Your task to perform on an android device: change timer sound Image 0: 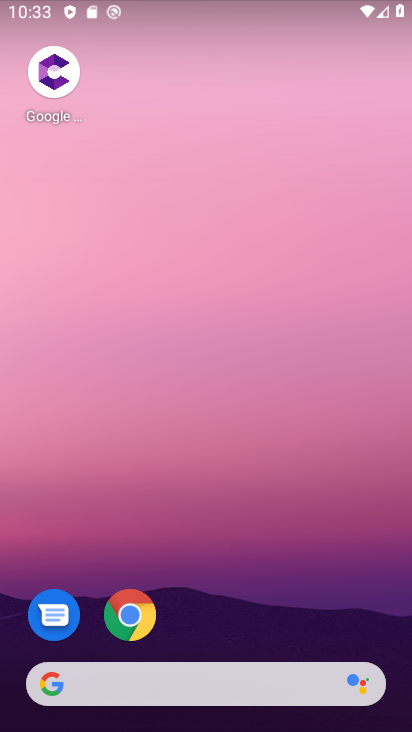
Step 0: drag from (282, 617) to (284, 355)
Your task to perform on an android device: change timer sound Image 1: 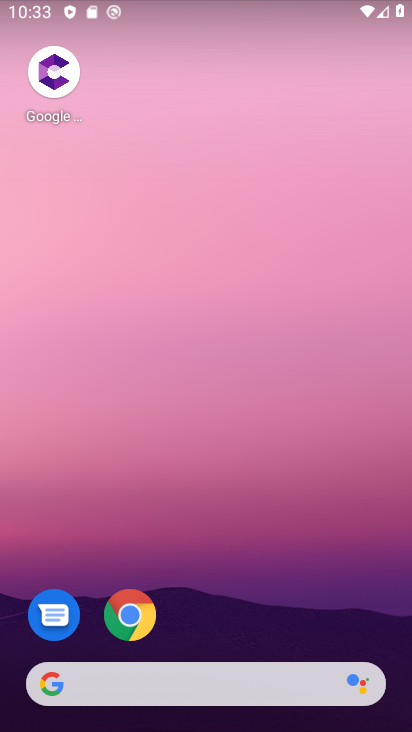
Step 1: drag from (261, 654) to (300, 261)
Your task to perform on an android device: change timer sound Image 2: 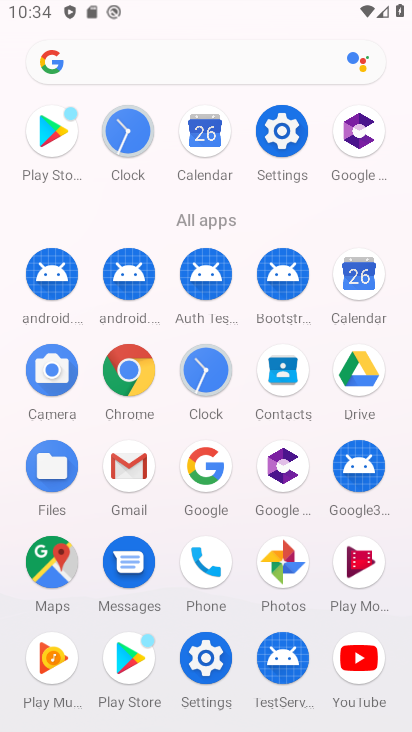
Step 2: click (220, 394)
Your task to perform on an android device: change timer sound Image 3: 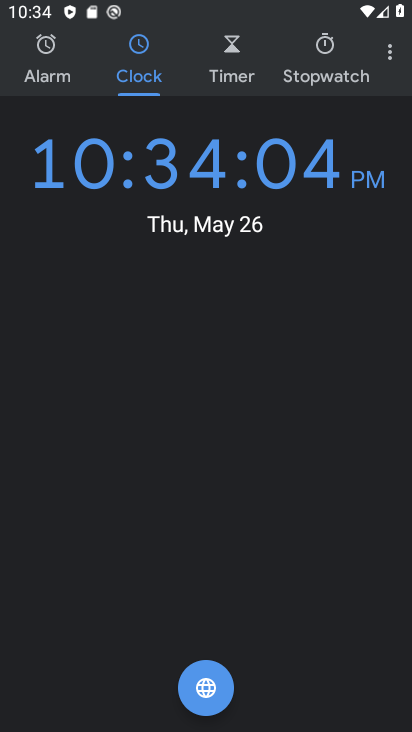
Step 3: click (398, 44)
Your task to perform on an android device: change timer sound Image 4: 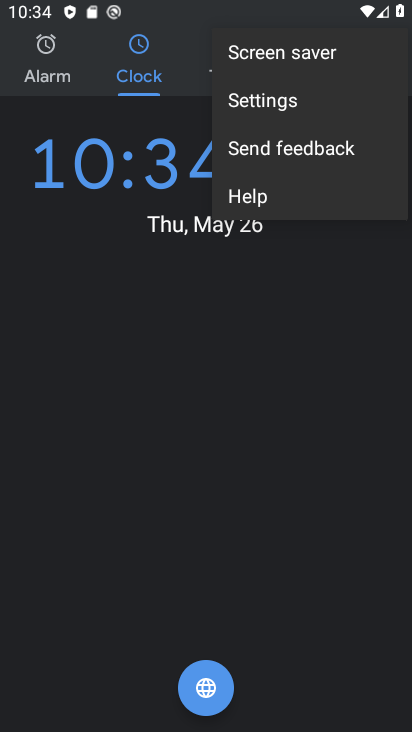
Step 4: click (326, 103)
Your task to perform on an android device: change timer sound Image 5: 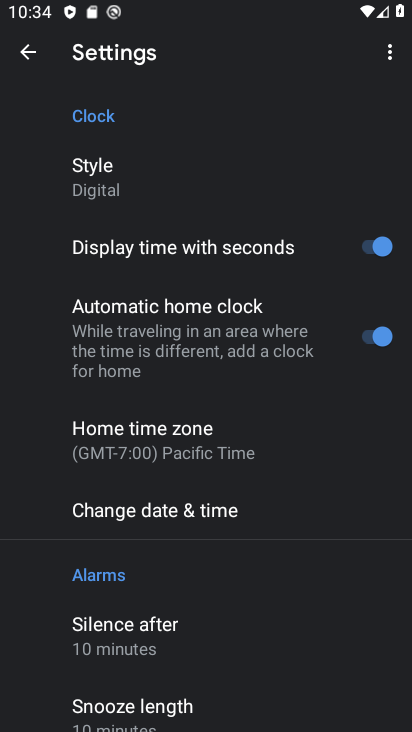
Step 5: drag from (307, 595) to (306, 424)
Your task to perform on an android device: change timer sound Image 6: 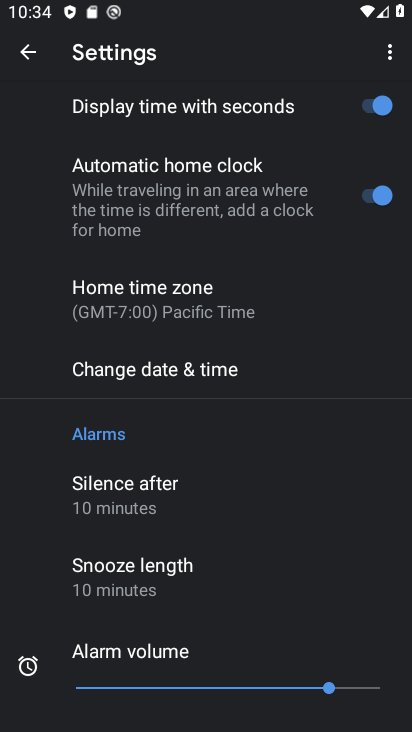
Step 6: drag from (292, 586) to (293, 206)
Your task to perform on an android device: change timer sound Image 7: 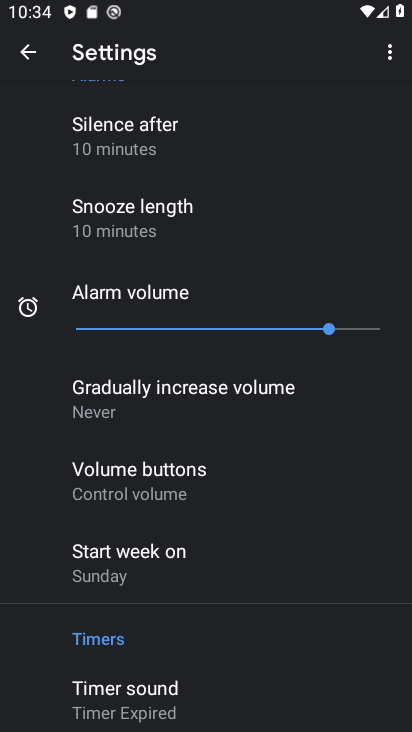
Step 7: drag from (250, 566) to (291, 353)
Your task to perform on an android device: change timer sound Image 8: 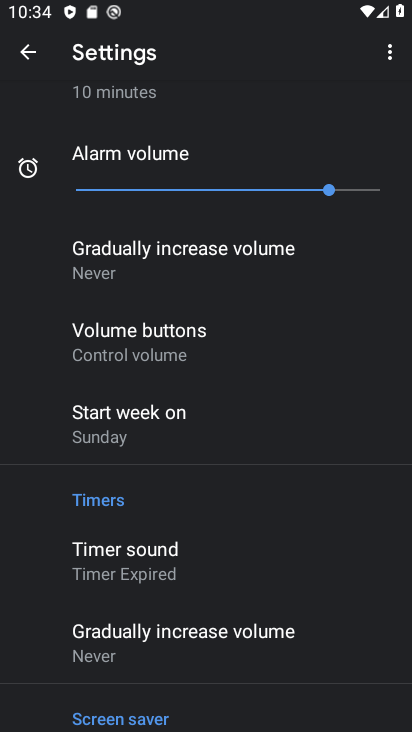
Step 8: click (194, 567)
Your task to perform on an android device: change timer sound Image 9: 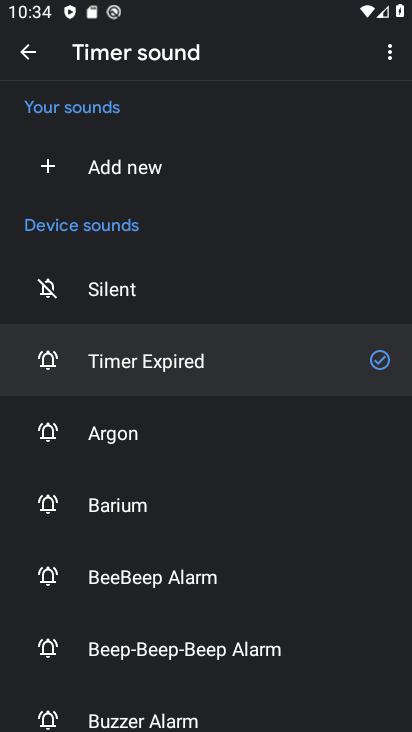
Step 9: click (203, 587)
Your task to perform on an android device: change timer sound Image 10: 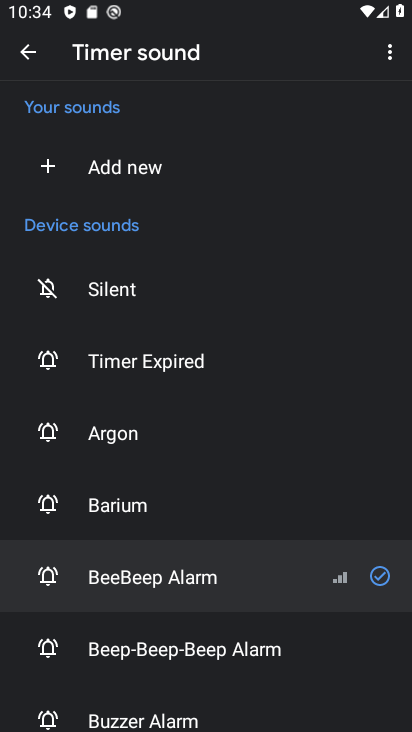
Step 10: task complete